Your task to perform on an android device: Do I have any events this weekend? Image 0: 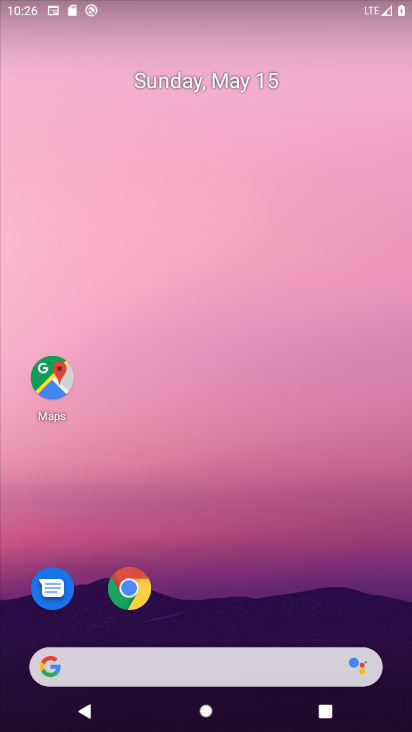
Step 0: click (257, 78)
Your task to perform on an android device: Do I have any events this weekend? Image 1: 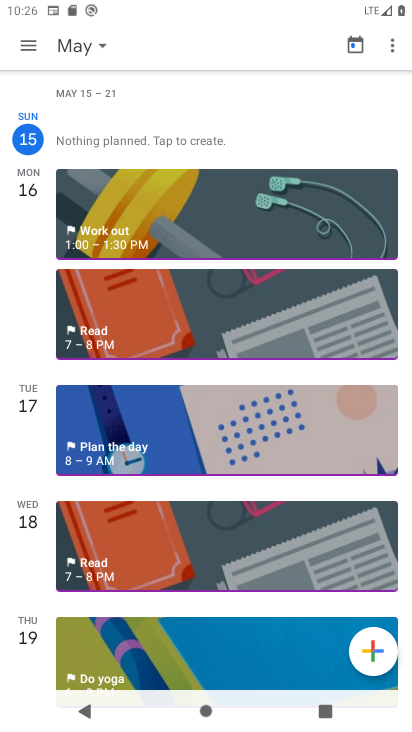
Step 1: drag from (36, 601) to (36, 346)
Your task to perform on an android device: Do I have any events this weekend? Image 2: 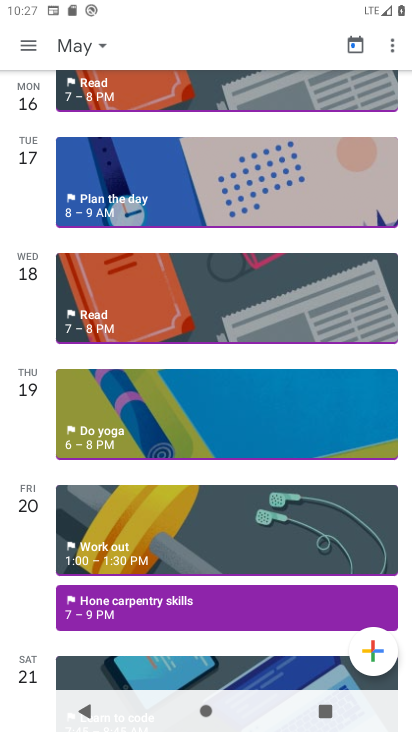
Step 2: click (21, 50)
Your task to perform on an android device: Do I have any events this weekend? Image 3: 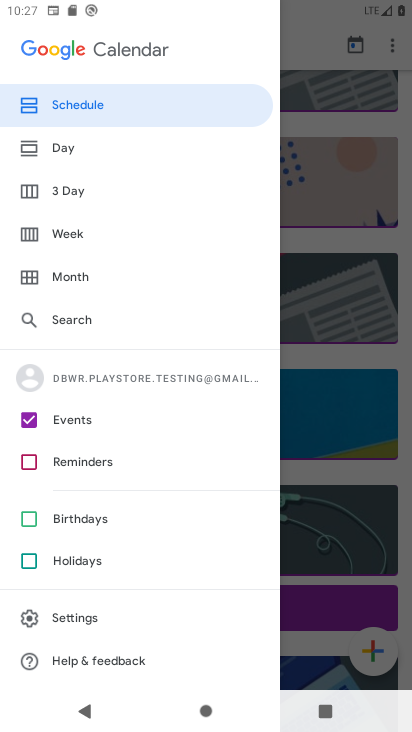
Step 3: click (59, 184)
Your task to perform on an android device: Do I have any events this weekend? Image 4: 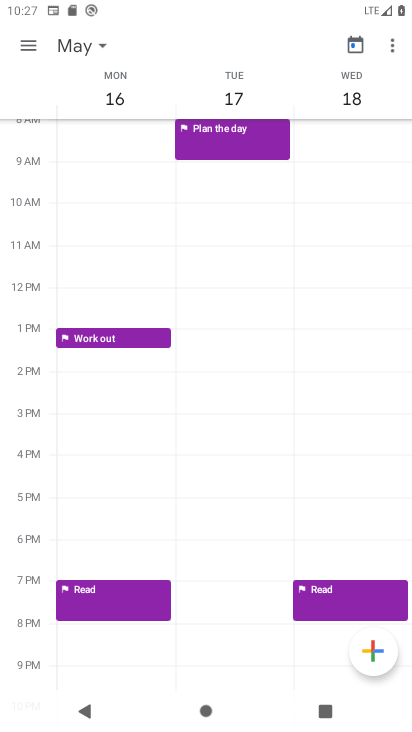
Step 4: task complete